Your task to perform on an android device: What's a good restaurant in Atlanta? Image 0: 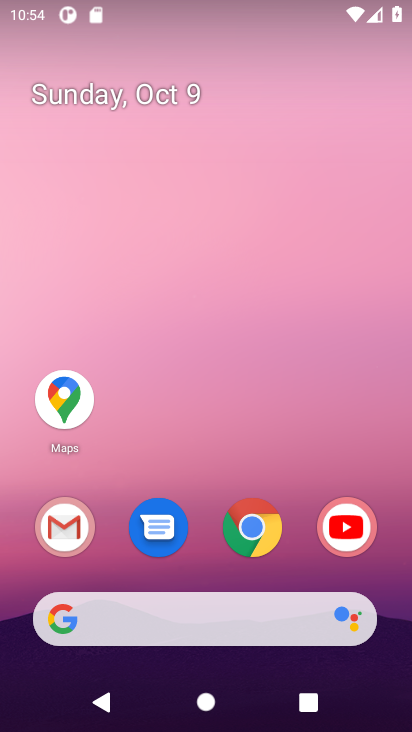
Step 0: click (260, 528)
Your task to perform on an android device: What's a good restaurant in Atlanta? Image 1: 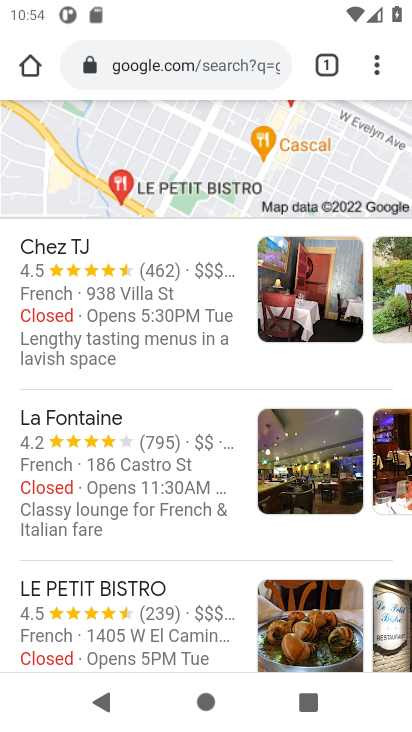
Step 1: click (147, 74)
Your task to perform on an android device: What's a good restaurant in Atlanta? Image 2: 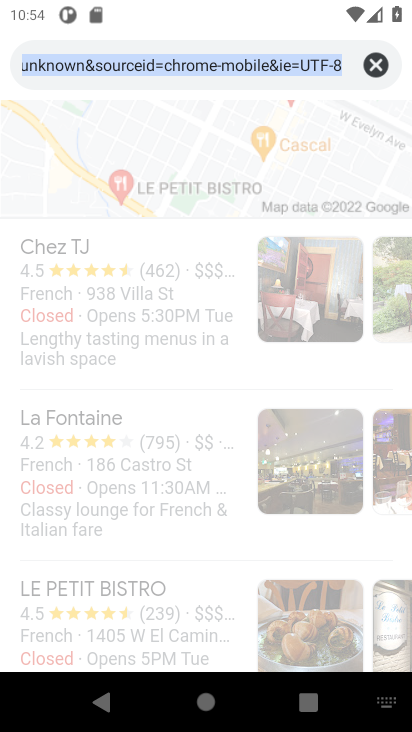
Step 2: click (371, 69)
Your task to perform on an android device: What's a good restaurant in Atlanta? Image 3: 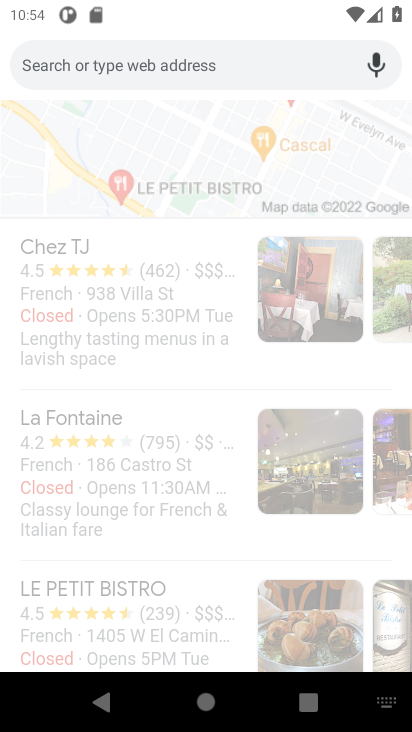
Step 3: type "a good restaurant in Atlanta"
Your task to perform on an android device: What's a good restaurant in Atlanta? Image 4: 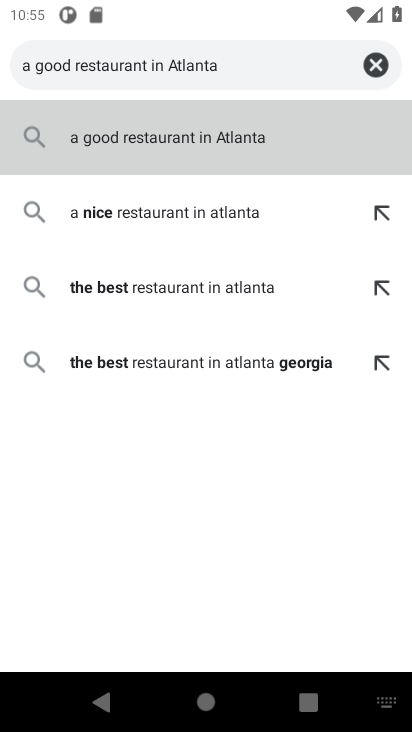
Step 4: click (95, 142)
Your task to perform on an android device: What's a good restaurant in Atlanta? Image 5: 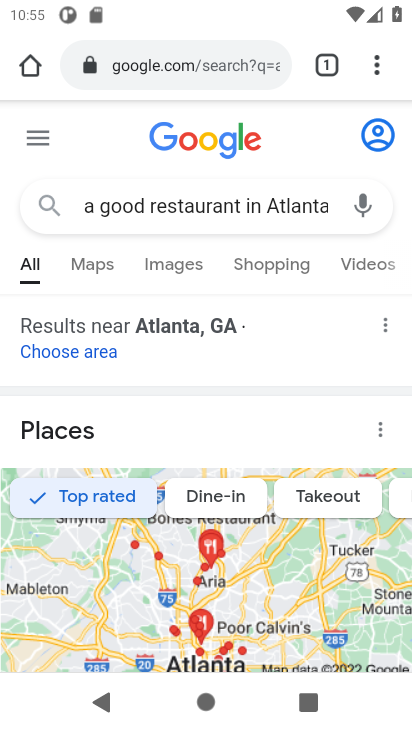
Step 5: drag from (242, 418) to (232, 176)
Your task to perform on an android device: What's a good restaurant in Atlanta? Image 6: 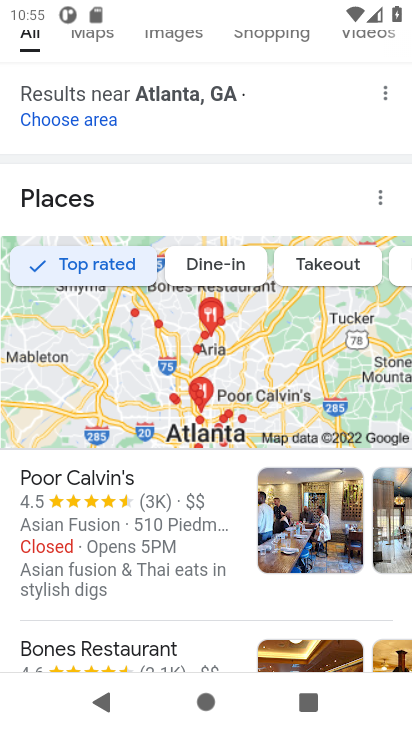
Step 6: drag from (166, 508) to (177, 218)
Your task to perform on an android device: What's a good restaurant in Atlanta? Image 7: 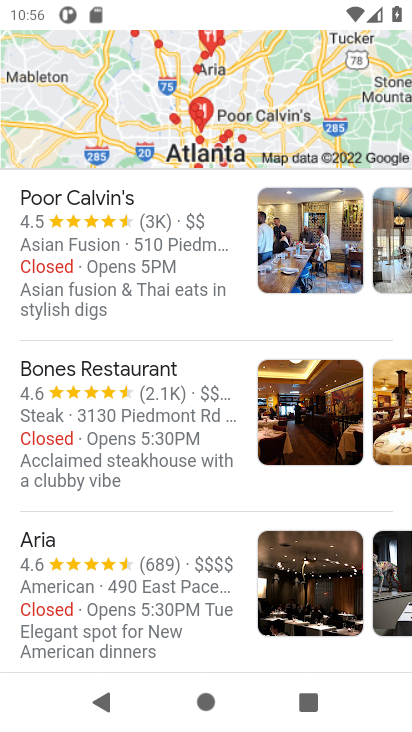
Step 7: click (113, 267)
Your task to perform on an android device: What's a good restaurant in Atlanta? Image 8: 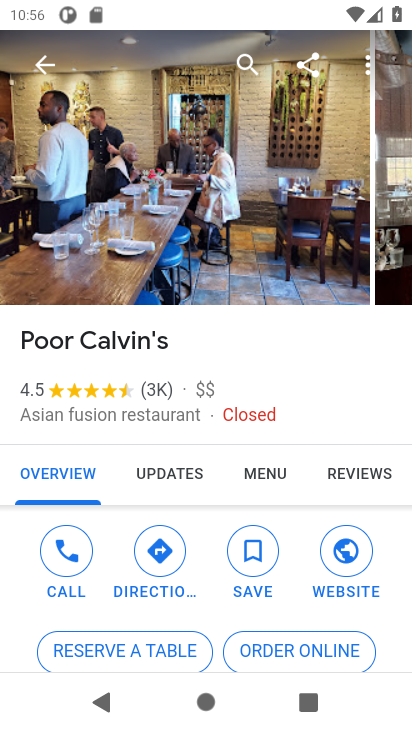
Step 8: task complete